Your task to perform on an android device: When is my next meeting? Image 0: 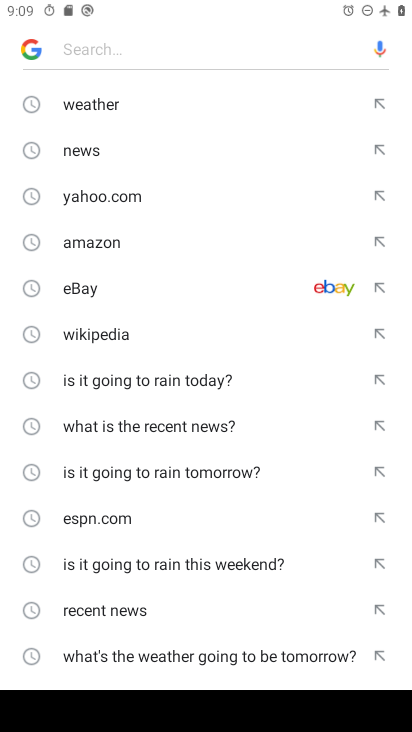
Step 0: press home button
Your task to perform on an android device: When is my next meeting? Image 1: 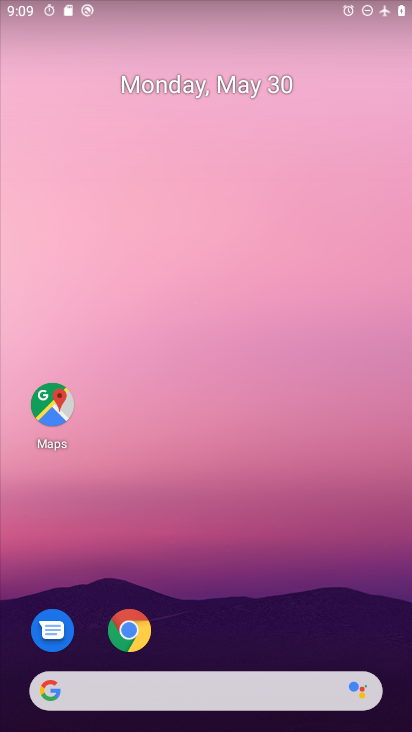
Step 1: drag from (337, 635) to (249, 31)
Your task to perform on an android device: When is my next meeting? Image 2: 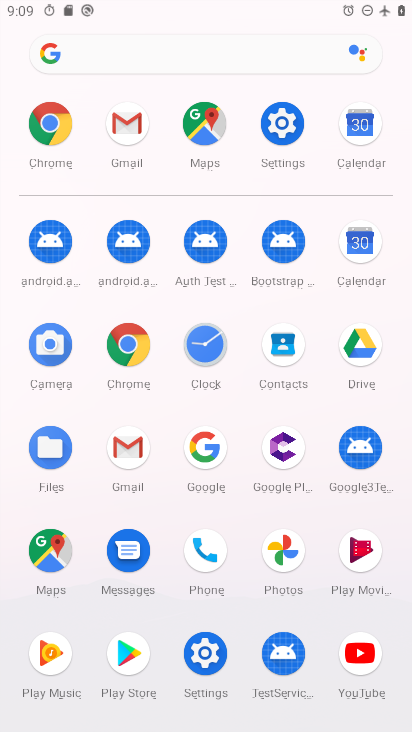
Step 2: click (354, 249)
Your task to perform on an android device: When is my next meeting? Image 3: 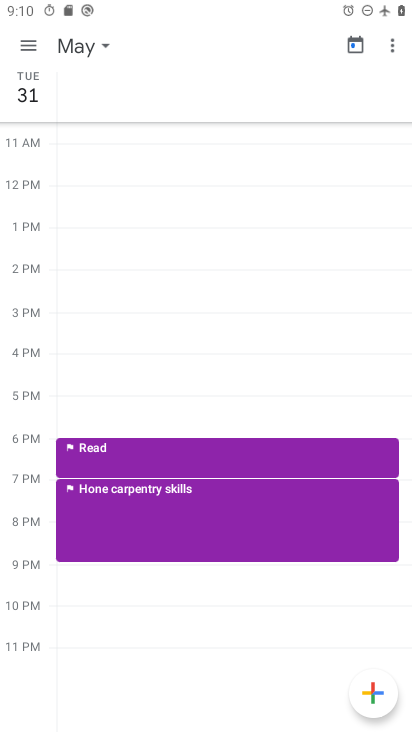
Step 3: task complete